Your task to perform on an android device: Open Wikipedia Image 0: 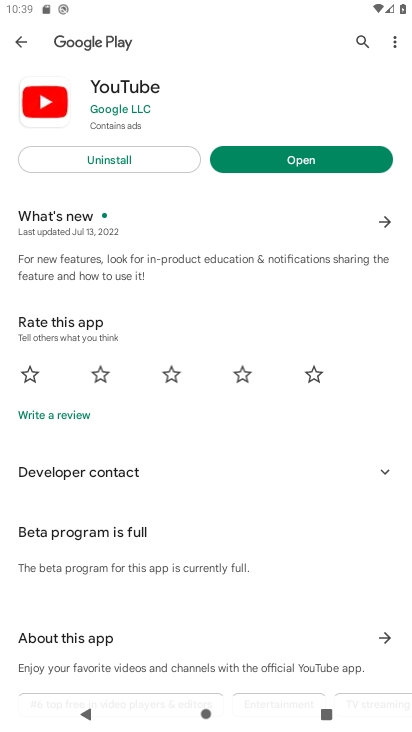
Step 0: press home button
Your task to perform on an android device: Open Wikipedia Image 1: 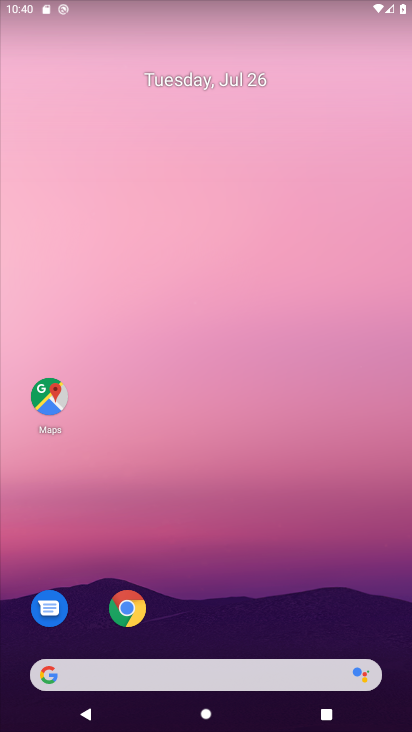
Step 1: drag from (293, 619) to (330, 52)
Your task to perform on an android device: Open Wikipedia Image 2: 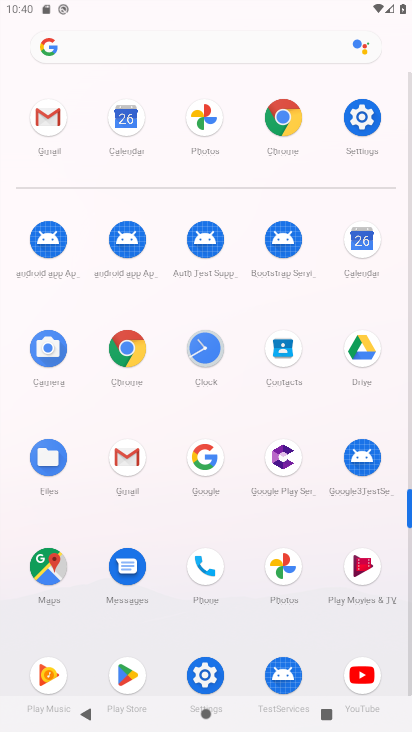
Step 2: click (284, 118)
Your task to perform on an android device: Open Wikipedia Image 3: 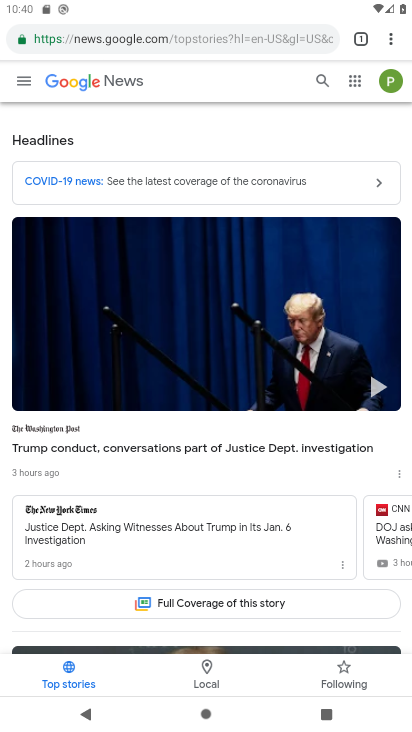
Step 3: click (217, 37)
Your task to perform on an android device: Open Wikipedia Image 4: 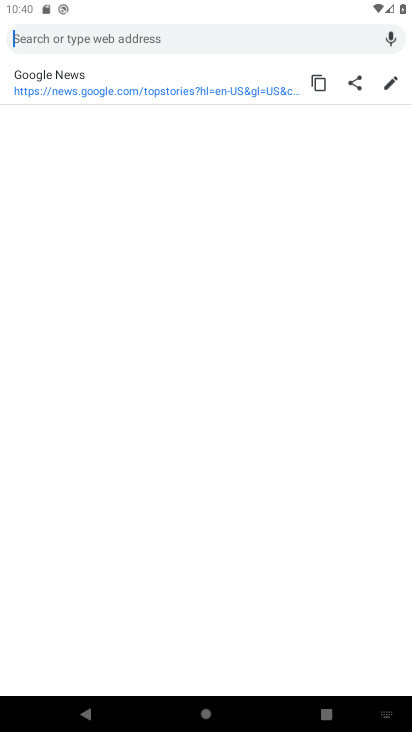
Step 4: type "wikipedia"
Your task to perform on an android device: Open Wikipedia Image 5: 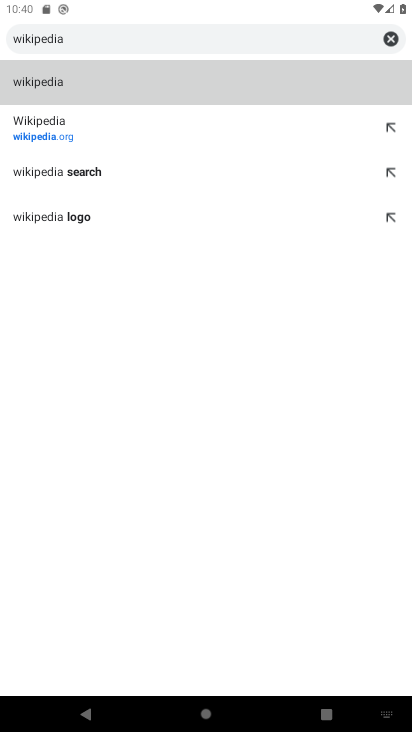
Step 5: click (37, 120)
Your task to perform on an android device: Open Wikipedia Image 6: 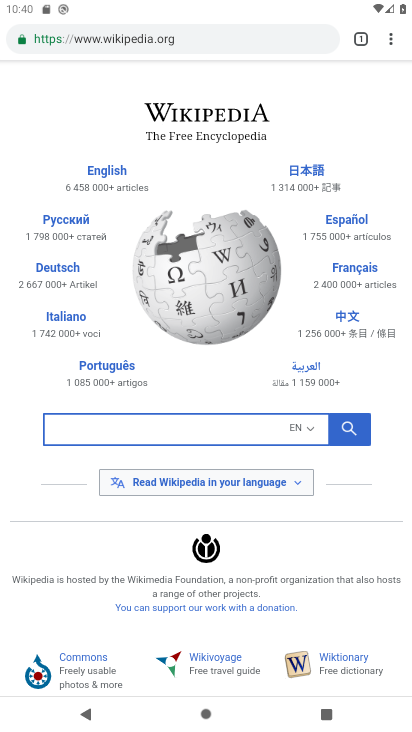
Step 6: task complete